Your task to perform on an android device: turn off location Image 0: 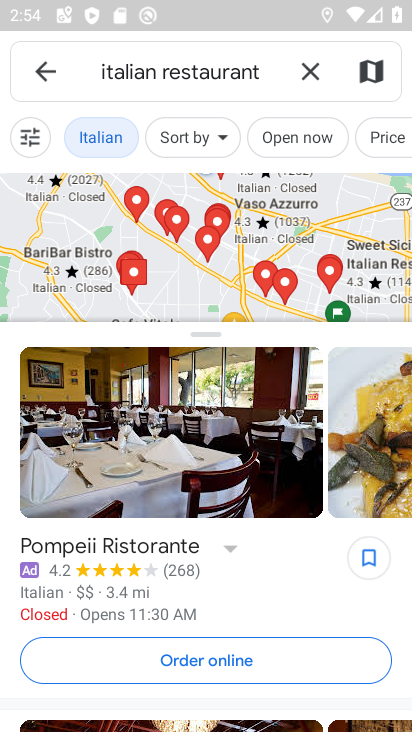
Step 0: press home button
Your task to perform on an android device: turn off location Image 1: 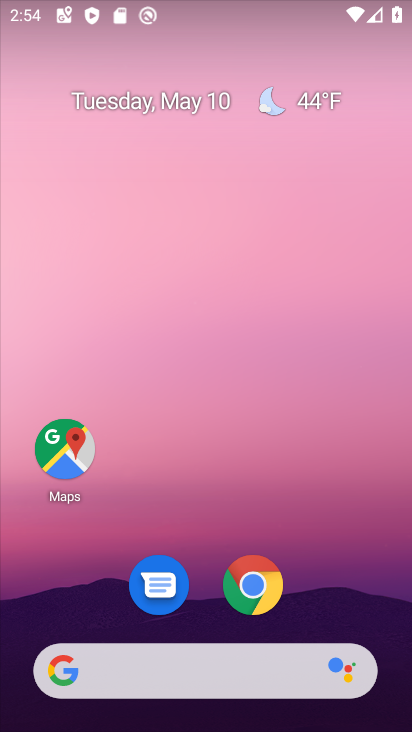
Step 1: drag from (209, 463) to (219, 52)
Your task to perform on an android device: turn off location Image 2: 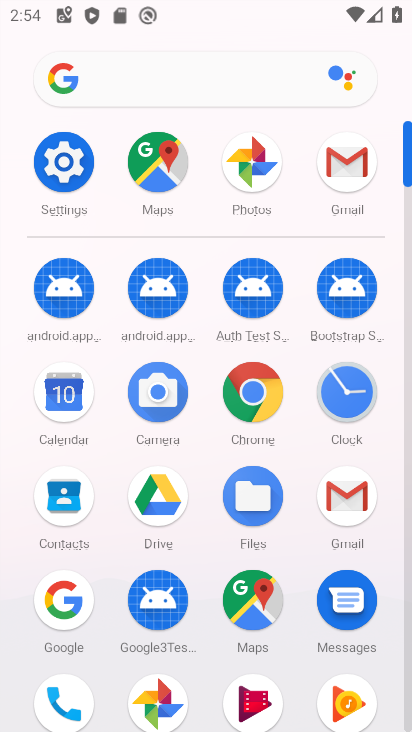
Step 2: click (65, 171)
Your task to perform on an android device: turn off location Image 3: 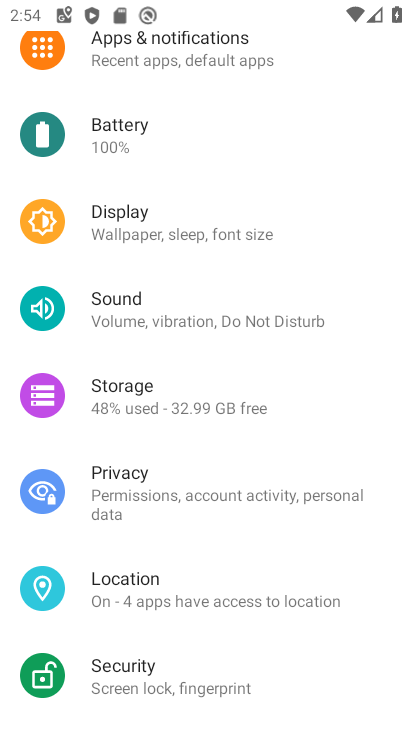
Step 3: click (195, 586)
Your task to perform on an android device: turn off location Image 4: 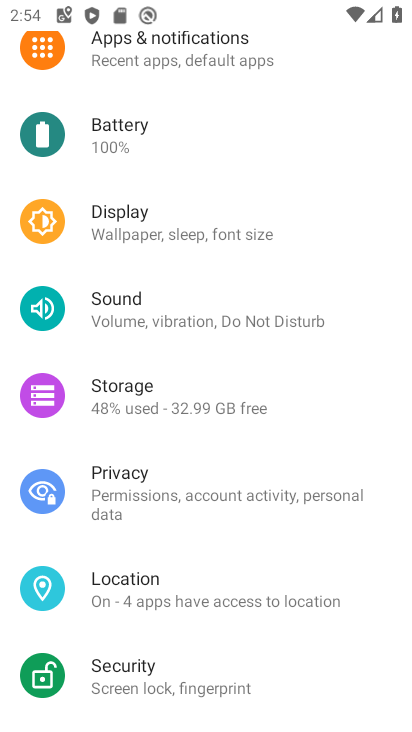
Step 4: click (196, 582)
Your task to perform on an android device: turn off location Image 5: 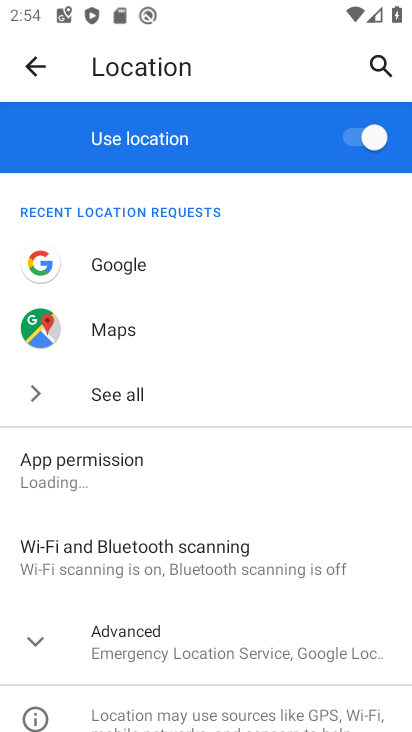
Step 5: click (354, 138)
Your task to perform on an android device: turn off location Image 6: 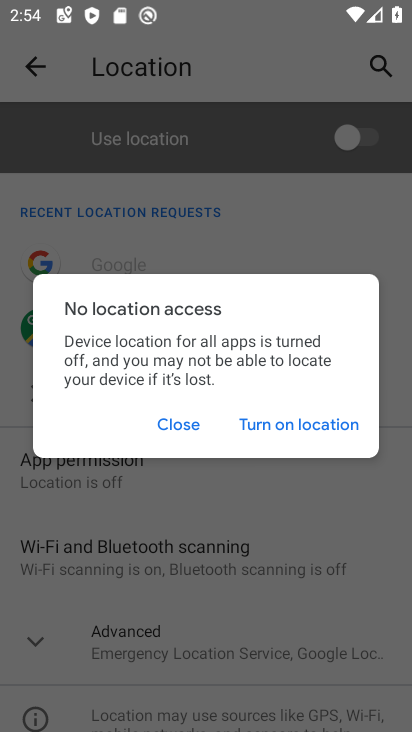
Step 6: click (180, 424)
Your task to perform on an android device: turn off location Image 7: 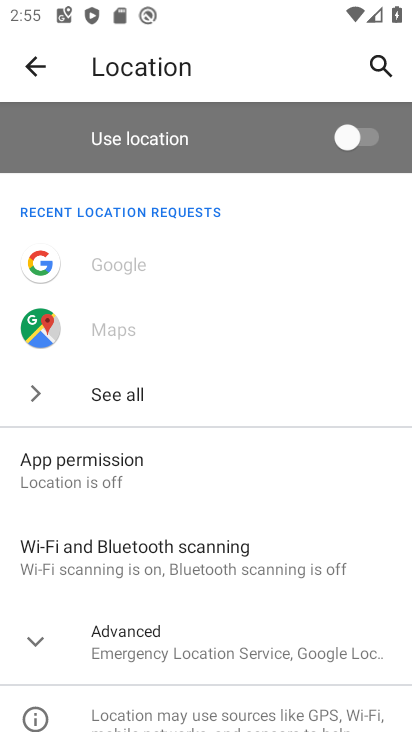
Step 7: task complete